Your task to perform on an android device: open app "Adobe Acrobat Reader: Edit PDF" (install if not already installed) Image 0: 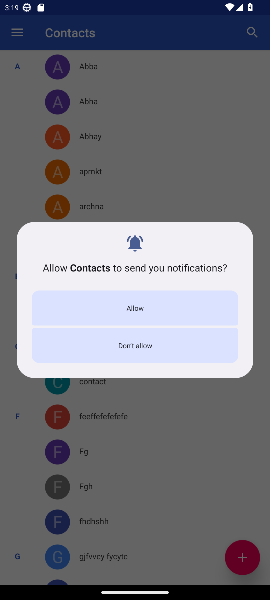
Step 0: press home button
Your task to perform on an android device: open app "Adobe Acrobat Reader: Edit PDF" (install if not already installed) Image 1: 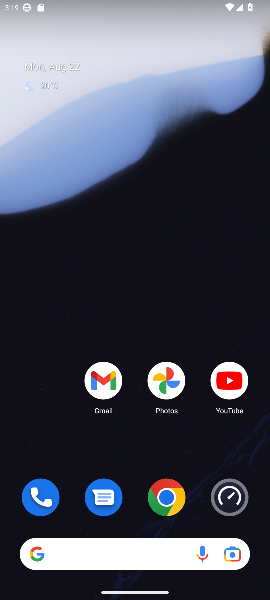
Step 1: drag from (49, 418) to (48, 105)
Your task to perform on an android device: open app "Adobe Acrobat Reader: Edit PDF" (install if not already installed) Image 2: 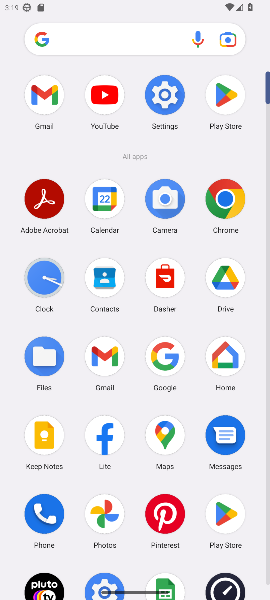
Step 2: click (224, 97)
Your task to perform on an android device: open app "Adobe Acrobat Reader: Edit PDF" (install if not already installed) Image 3: 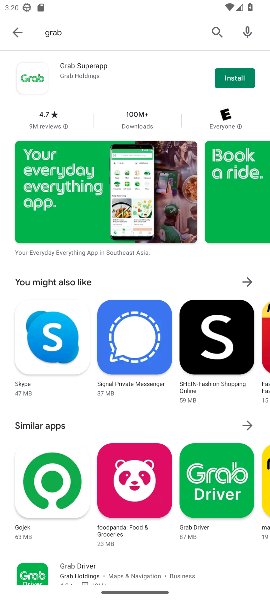
Step 3: press back button
Your task to perform on an android device: open app "Adobe Acrobat Reader: Edit PDF" (install if not already installed) Image 4: 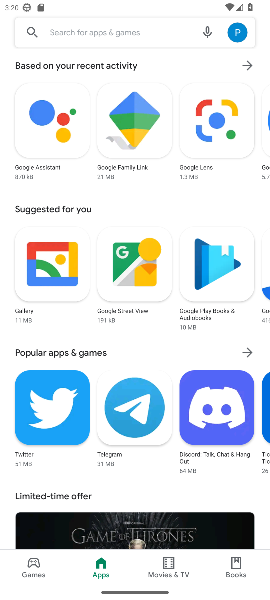
Step 4: click (108, 27)
Your task to perform on an android device: open app "Adobe Acrobat Reader: Edit PDF" (install if not already installed) Image 5: 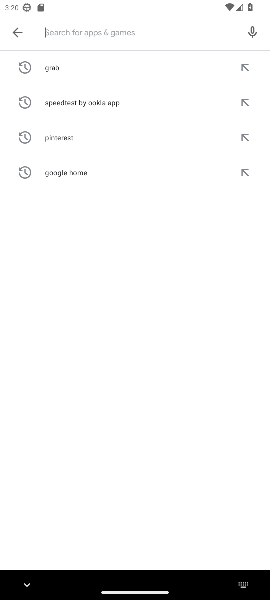
Step 5: type "Adobe Acrobat Reader"
Your task to perform on an android device: open app "Adobe Acrobat Reader: Edit PDF" (install if not already installed) Image 6: 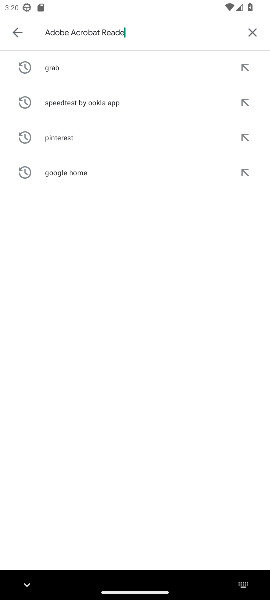
Step 6: press enter
Your task to perform on an android device: open app "Adobe Acrobat Reader: Edit PDF" (install if not already installed) Image 7: 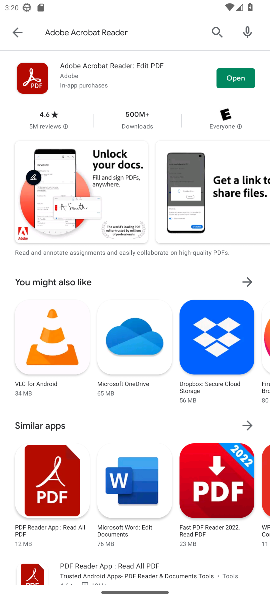
Step 7: click (236, 78)
Your task to perform on an android device: open app "Adobe Acrobat Reader: Edit PDF" (install if not already installed) Image 8: 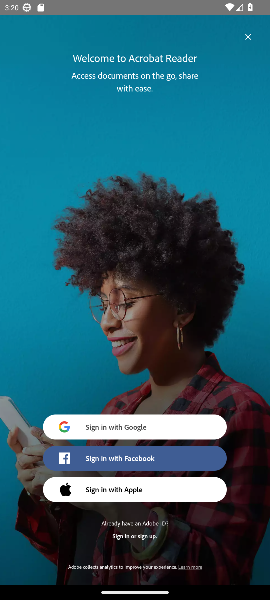
Step 8: task complete